Your task to perform on an android device: Open Youtube and go to "Your channel" Image 0: 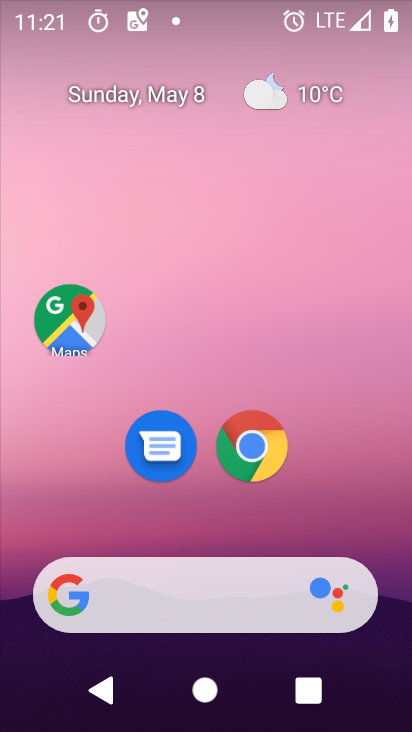
Step 0: drag from (343, 542) to (356, 31)
Your task to perform on an android device: Open Youtube and go to "Your channel" Image 1: 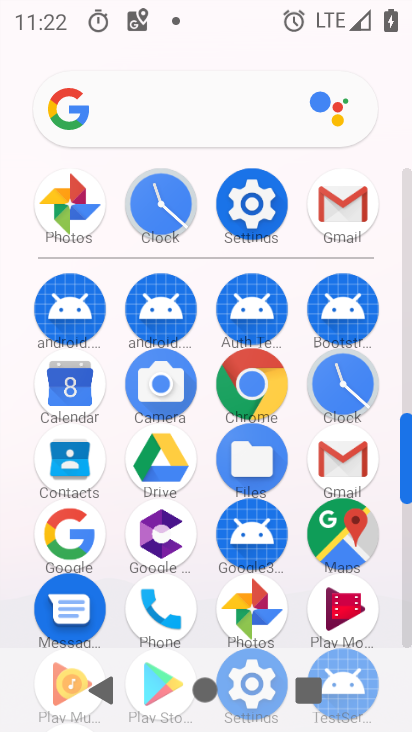
Step 1: click (410, 490)
Your task to perform on an android device: Open Youtube and go to "Your channel" Image 2: 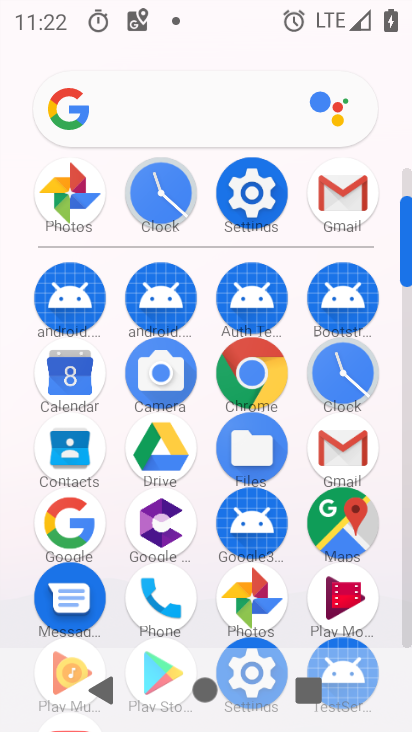
Step 2: click (410, 557)
Your task to perform on an android device: Open Youtube and go to "Your channel" Image 3: 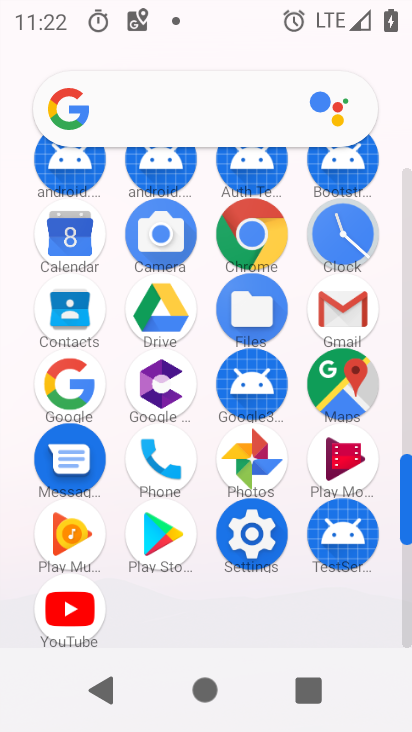
Step 3: click (70, 606)
Your task to perform on an android device: Open Youtube and go to "Your channel" Image 4: 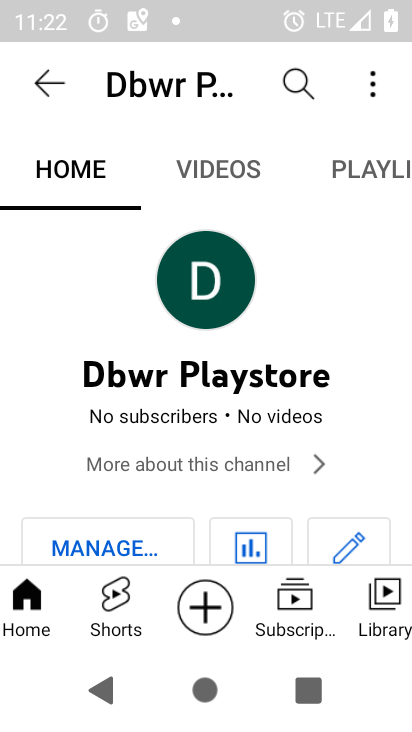
Step 4: click (382, 89)
Your task to perform on an android device: Open Youtube and go to "Your channel" Image 5: 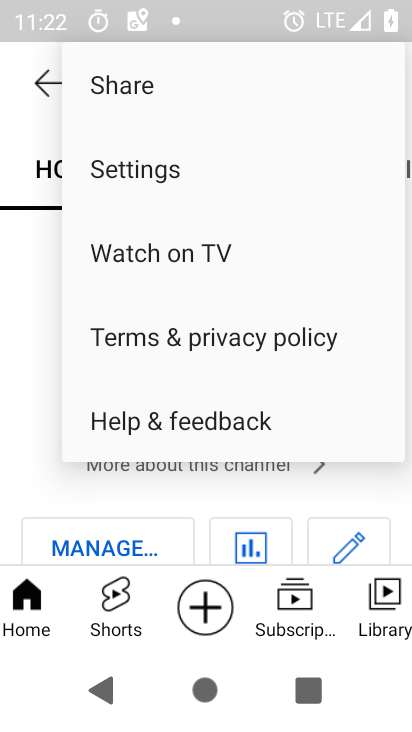
Step 5: click (210, 467)
Your task to perform on an android device: Open Youtube and go to "Your channel" Image 6: 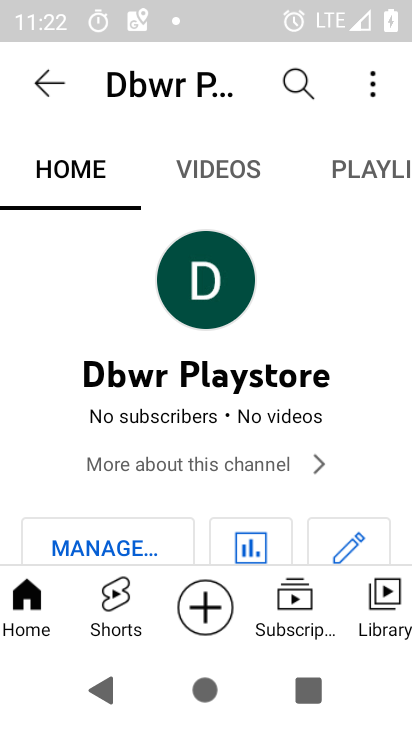
Step 6: task complete